Your task to perform on an android device: Open Maps and search for coffee Image 0: 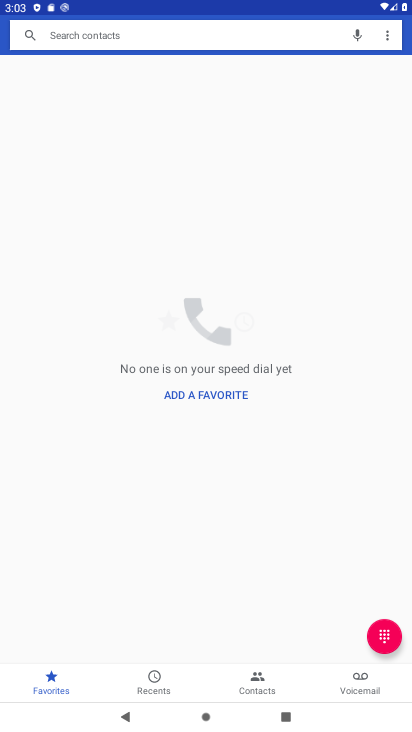
Step 0: press home button
Your task to perform on an android device: Open Maps and search for coffee Image 1: 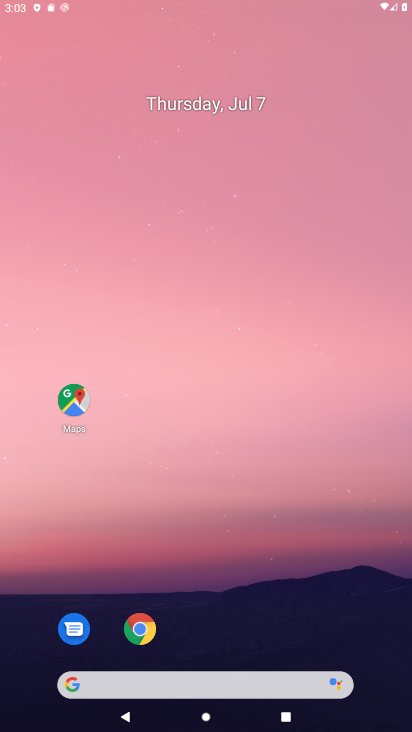
Step 1: drag from (212, 637) to (262, 309)
Your task to perform on an android device: Open Maps and search for coffee Image 2: 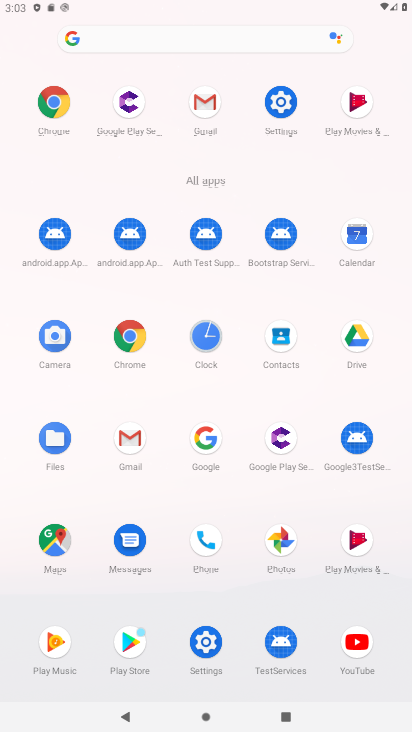
Step 2: click (64, 524)
Your task to perform on an android device: Open Maps and search for coffee Image 3: 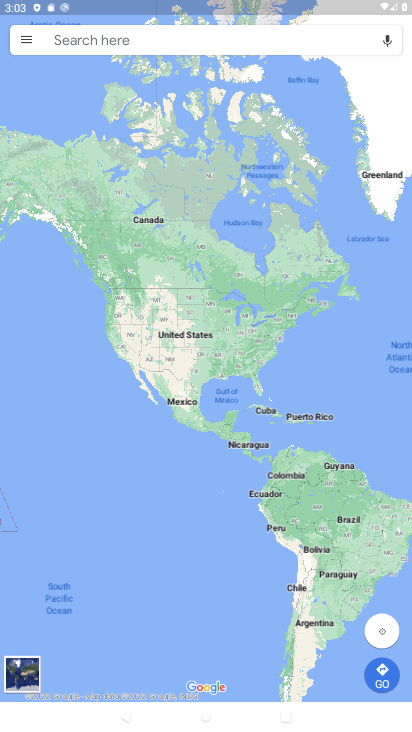
Step 3: click (139, 28)
Your task to perform on an android device: Open Maps and search for coffee Image 4: 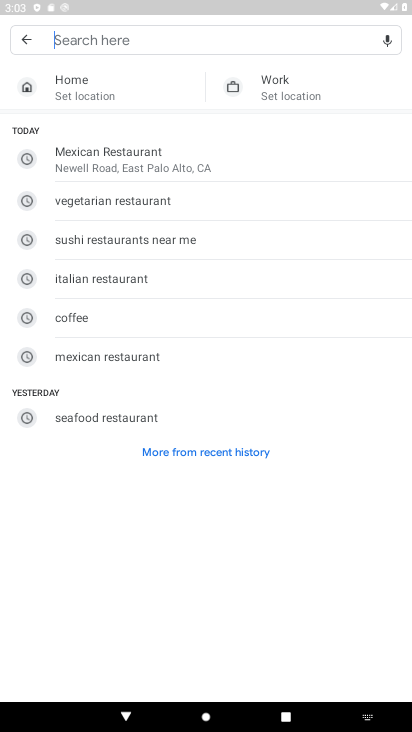
Step 4: type "coffee "
Your task to perform on an android device: Open Maps and search for coffee Image 5: 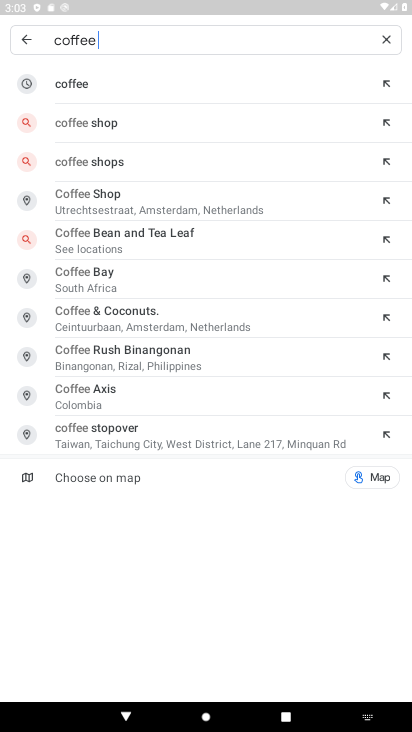
Step 5: click (83, 65)
Your task to perform on an android device: Open Maps and search for coffee Image 6: 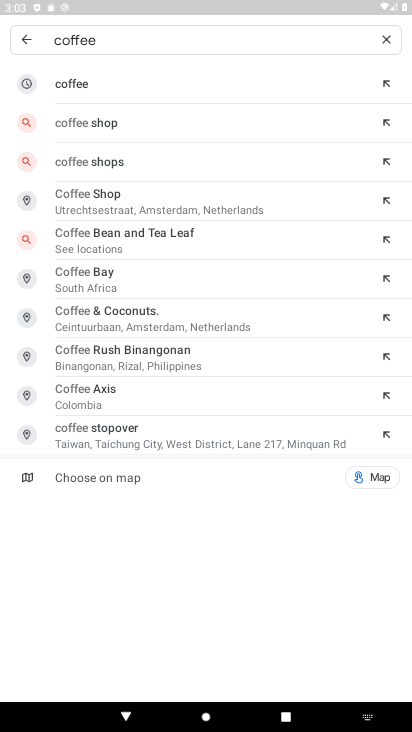
Step 6: click (90, 78)
Your task to perform on an android device: Open Maps and search for coffee Image 7: 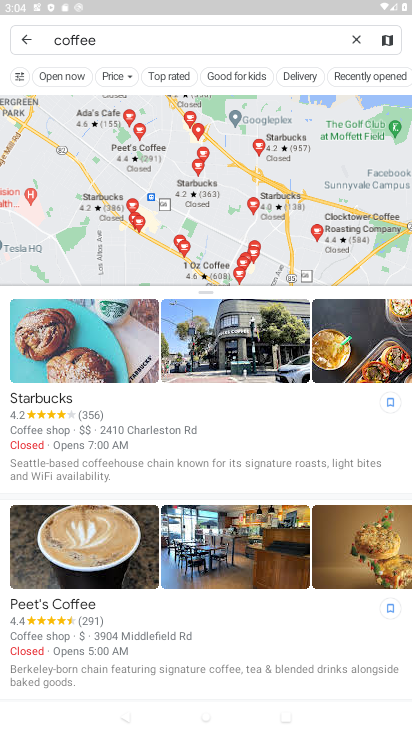
Step 7: task complete